Your task to perform on an android device: turn notification dots off Image 0: 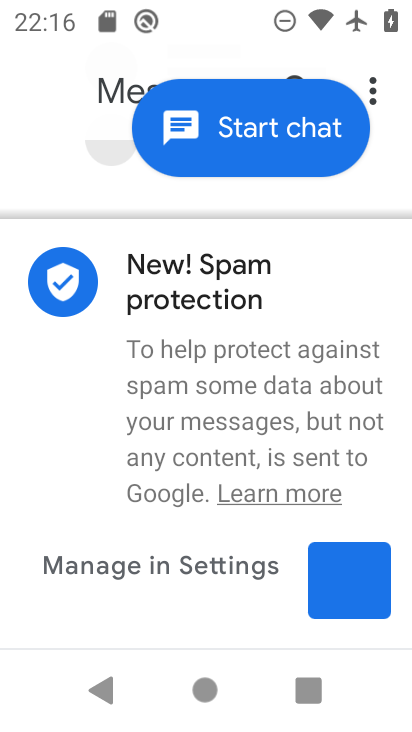
Step 0: press home button
Your task to perform on an android device: turn notification dots off Image 1: 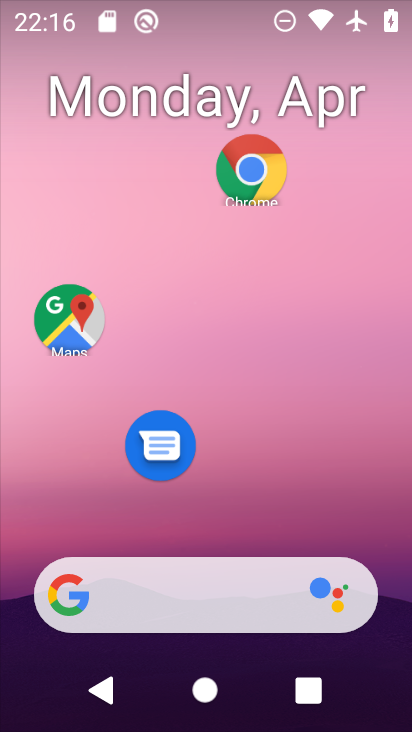
Step 1: drag from (211, 539) to (217, 63)
Your task to perform on an android device: turn notification dots off Image 2: 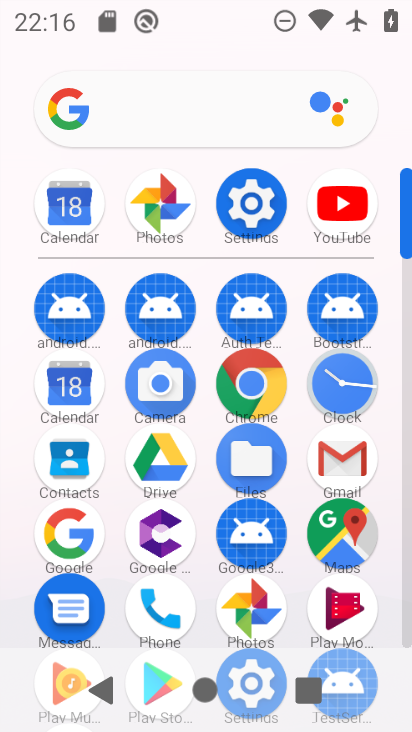
Step 2: click (251, 204)
Your task to perform on an android device: turn notification dots off Image 3: 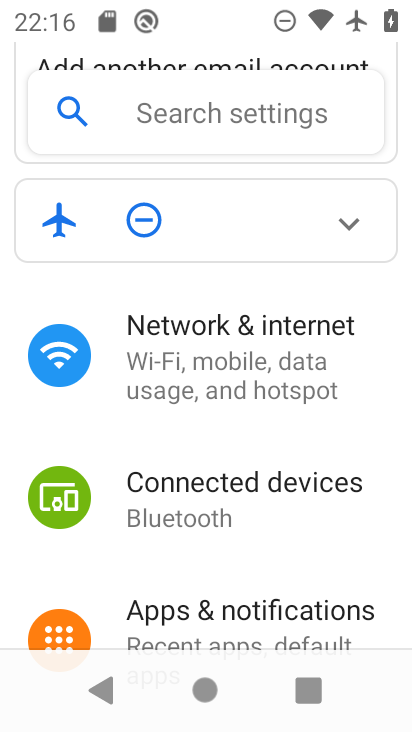
Step 3: drag from (217, 603) to (201, 309)
Your task to perform on an android device: turn notification dots off Image 4: 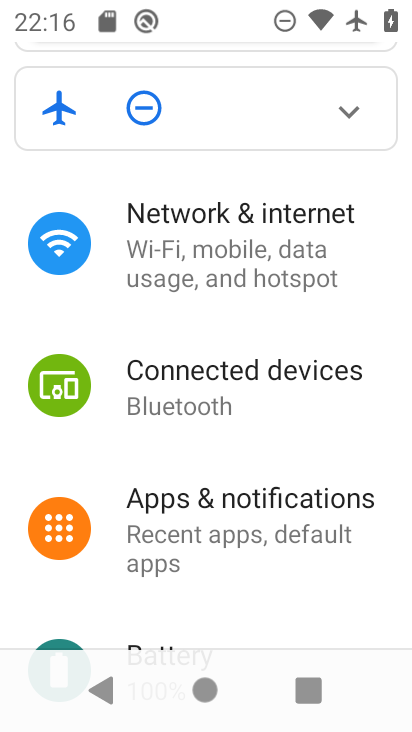
Step 4: click (243, 508)
Your task to perform on an android device: turn notification dots off Image 5: 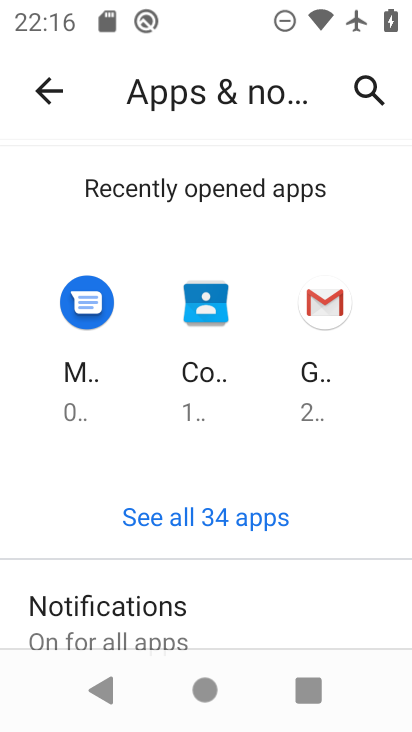
Step 5: drag from (243, 582) to (233, 282)
Your task to perform on an android device: turn notification dots off Image 6: 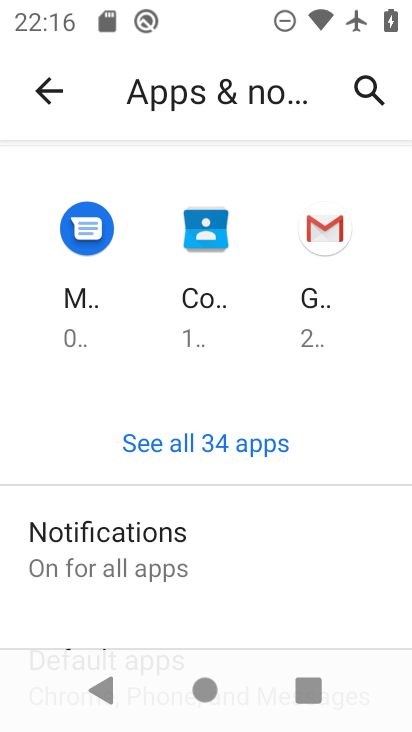
Step 6: drag from (255, 516) to (256, 279)
Your task to perform on an android device: turn notification dots off Image 7: 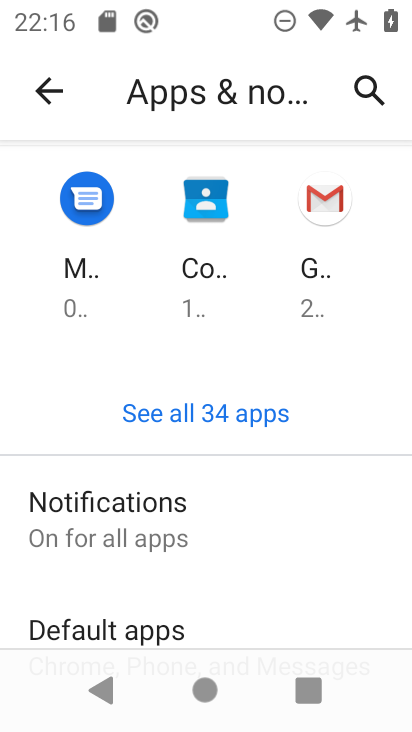
Step 7: click (131, 526)
Your task to perform on an android device: turn notification dots off Image 8: 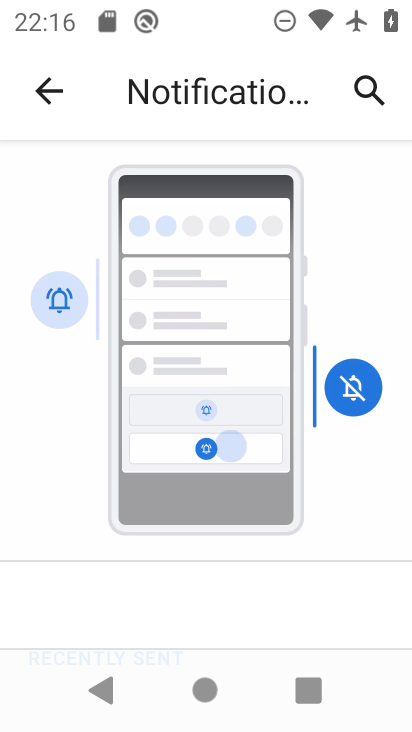
Step 8: drag from (255, 635) to (229, 189)
Your task to perform on an android device: turn notification dots off Image 9: 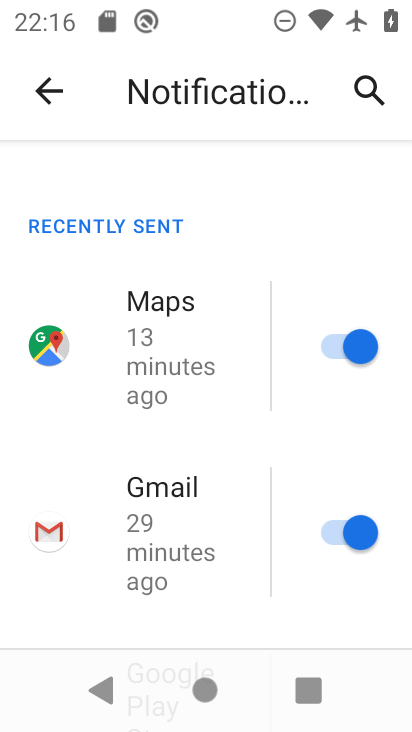
Step 9: drag from (233, 480) to (214, 168)
Your task to perform on an android device: turn notification dots off Image 10: 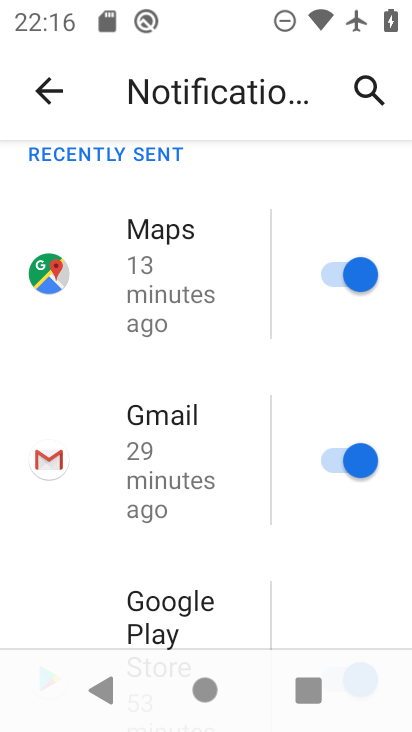
Step 10: drag from (235, 505) to (205, 196)
Your task to perform on an android device: turn notification dots off Image 11: 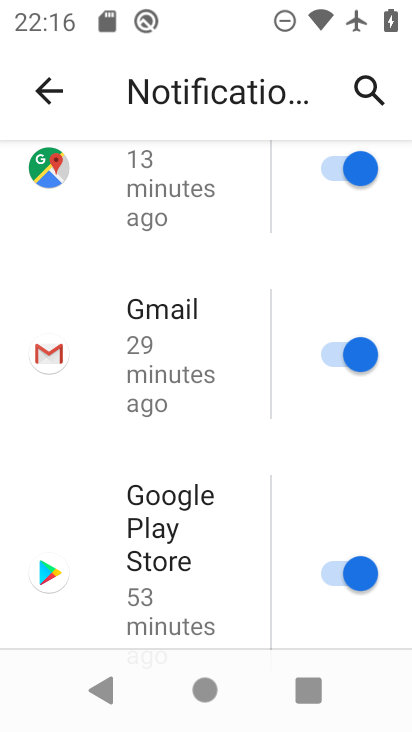
Step 11: drag from (244, 508) to (226, 175)
Your task to perform on an android device: turn notification dots off Image 12: 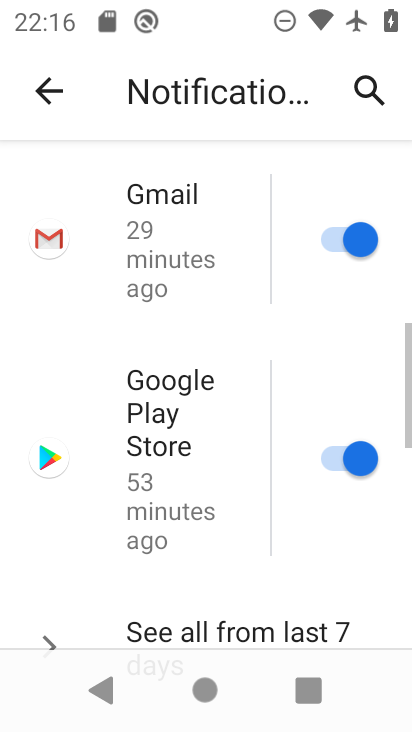
Step 12: drag from (257, 560) to (262, 238)
Your task to perform on an android device: turn notification dots off Image 13: 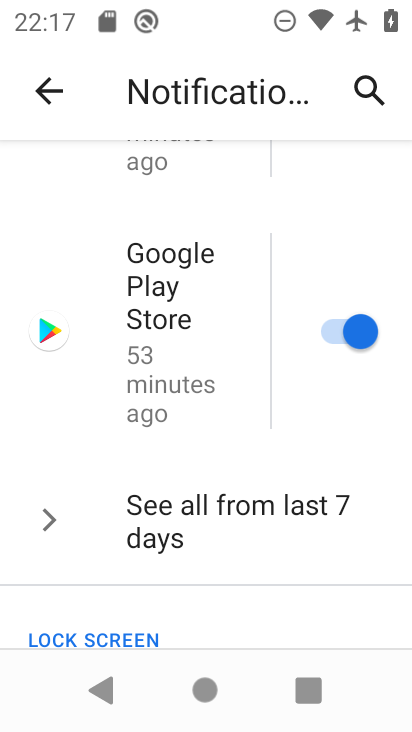
Step 13: drag from (263, 595) to (238, 219)
Your task to perform on an android device: turn notification dots off Image 14: 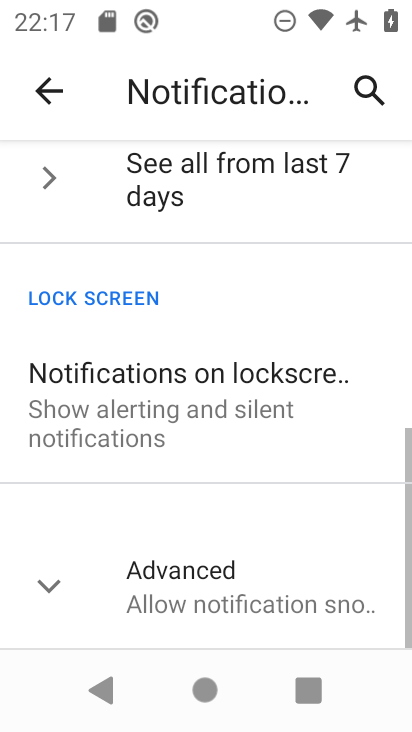
Step 14: drag from (260, 481) to (243, 305)
Your task to perform on an android device: turn notification dots off Image 15: 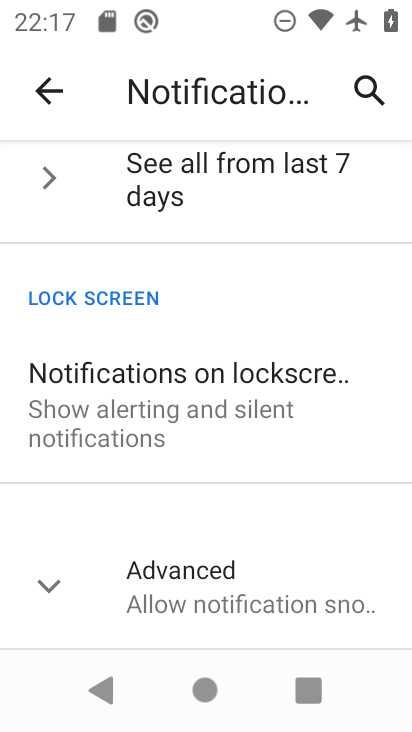
Step 15: click (228, 581)
Your task to perform on an android device: turn notification dots off Image 16: 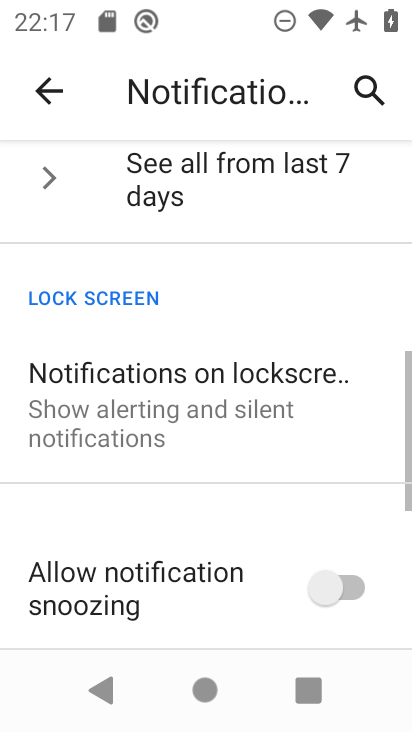
Step 16: drag from (228, 519) to (235, 250)
Your task to perform on an android device: turn notification dots off Image 17: 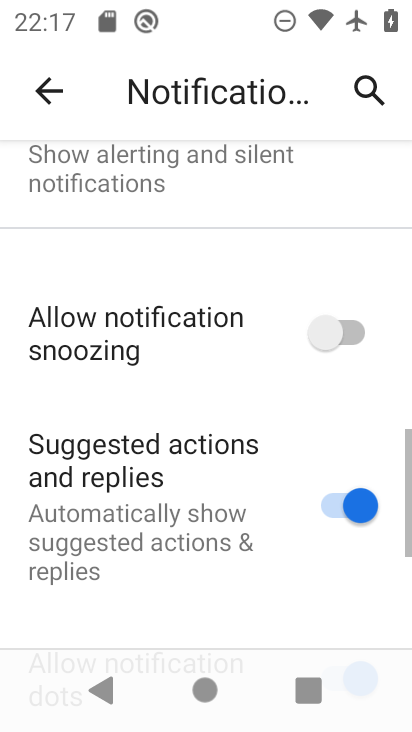
Step 17: drag from (264, 568) to (274, 258)
Your task to perform on an android device: turn notification dots off Image 18: 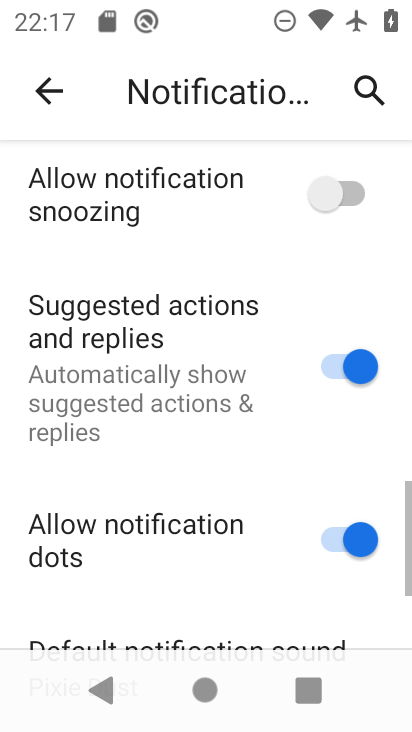
Step 18: drag from (270, 514) to (274, 297)
Your task to perform on an android device: turn notification dots off Image 19: 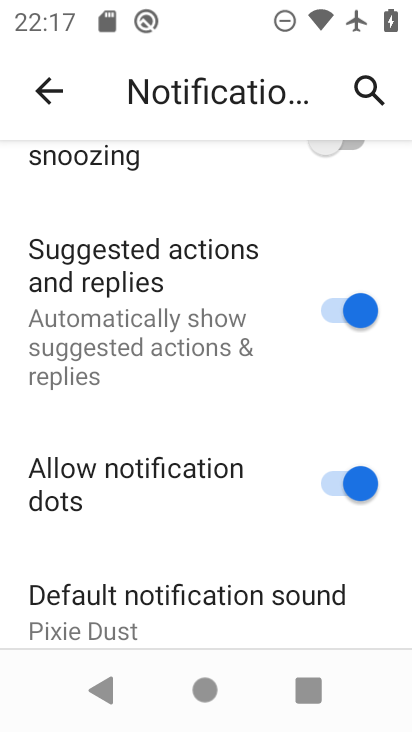
Step 19: click (331, 484)
Your task to perform on an android device: turn notification dots off Image 20: 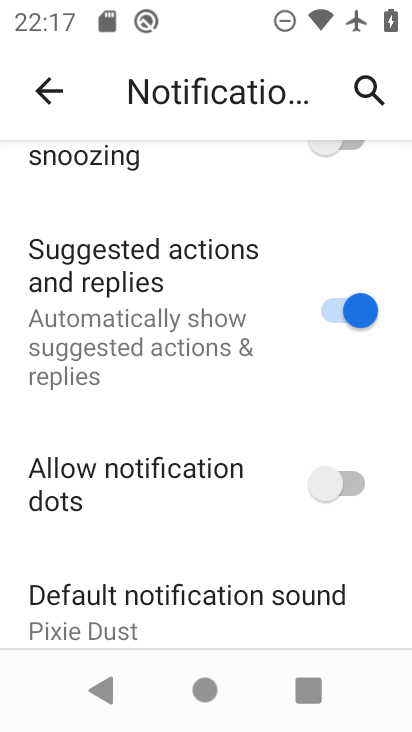
Step 20: task complete